Your task to perform on an android device: check android version Image 0: 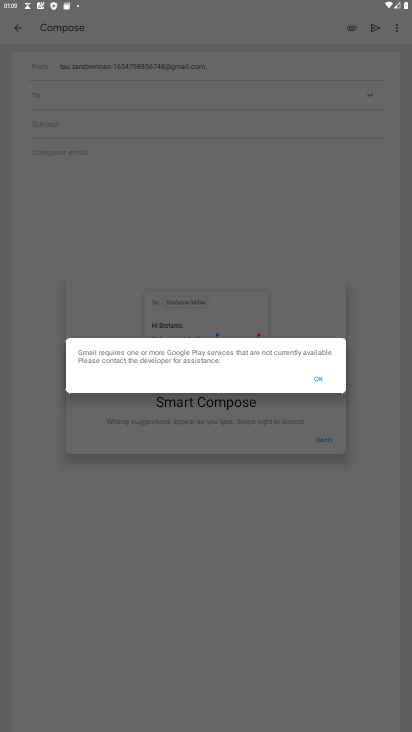
Step 0: press home button
Your task to perform on an android device: check android version Image 1: 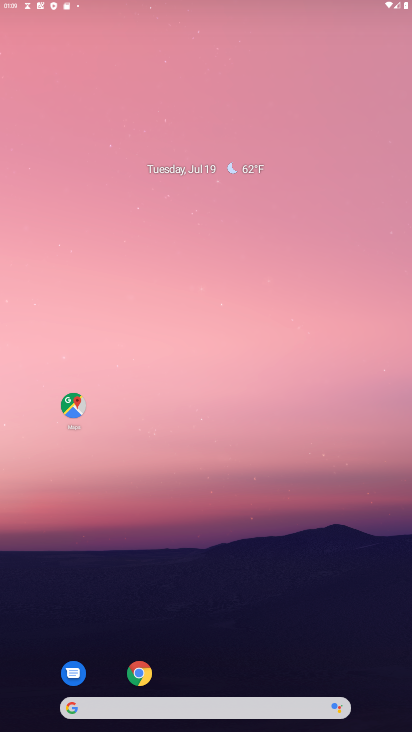
Step 1: drag from (308, 554) to (309, 78)
Your task to perform on an android device: check android version Image 2: 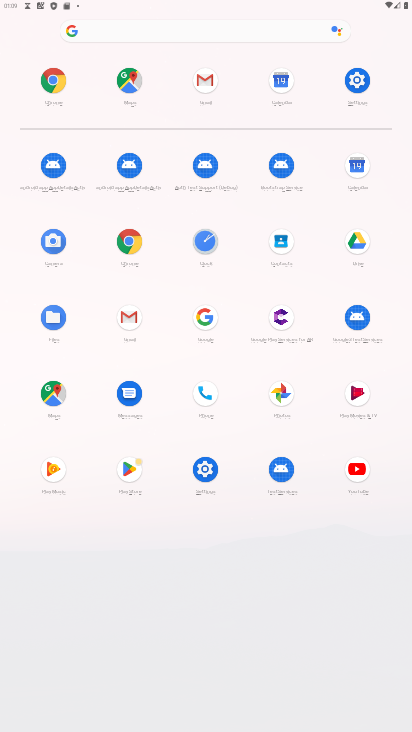
Step 2: click (360, 78)
Your task to perform on an android device: check android version Image 3: 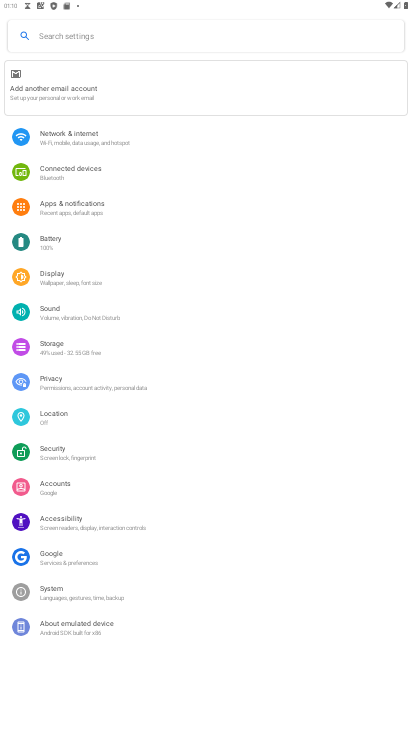
Step 3: click (48, 616)
Your task to perform on an android device: check android version Image 4: 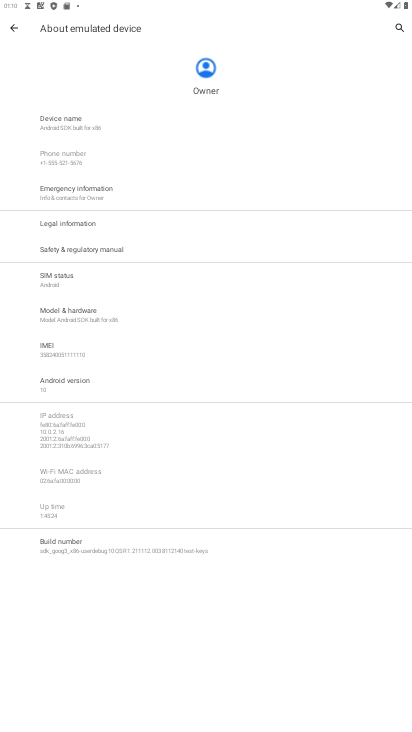
Step 4: task complete